Your task to perform on an android device: toggle sleep mode Image 0: 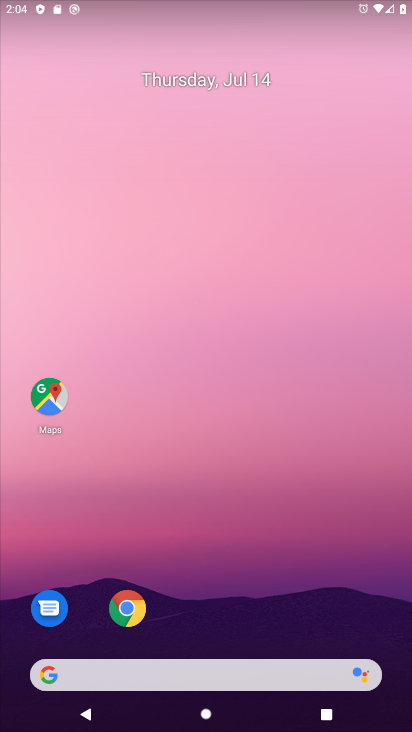
Step 0: drag from (240, 723) to (220, 193)
Your task to perform on an android device: toggle sleep mode Image 1: 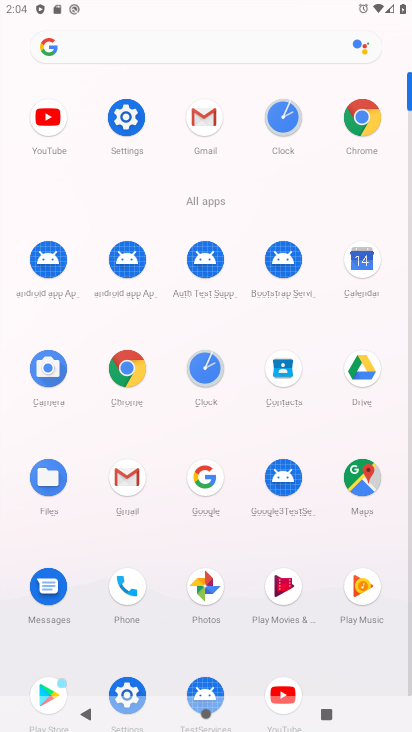
Step 1: click (124, 123)
Your task to perform on an android device: toggle sleep mode Image 2: 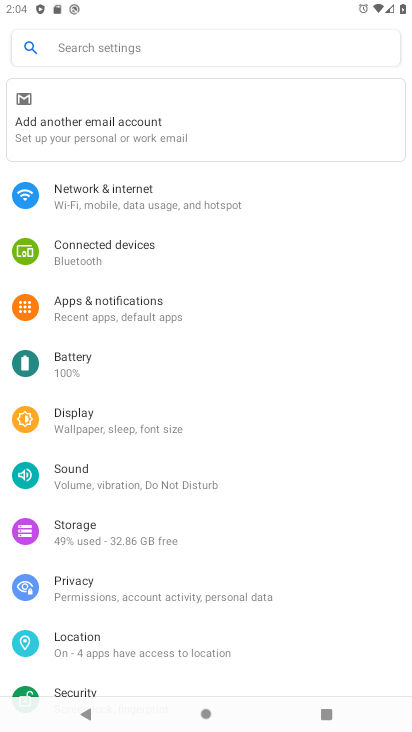
Step 2: drag from (106, 638) to (132, 254)
Your task to perform on an android device: toggle sleep mode Image 3: 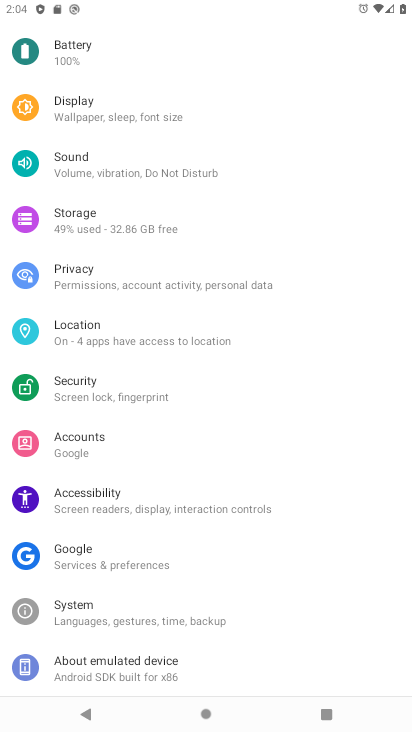
Step 3: click (150, 112)
Your task to perform on an android device: toggle sleep mode Image 4: 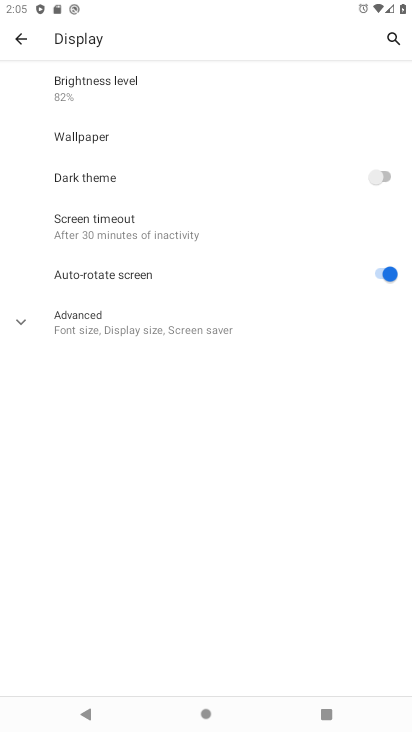
Step 4: task complete